Your task to perform on an android device: turn off wifi Image 0: 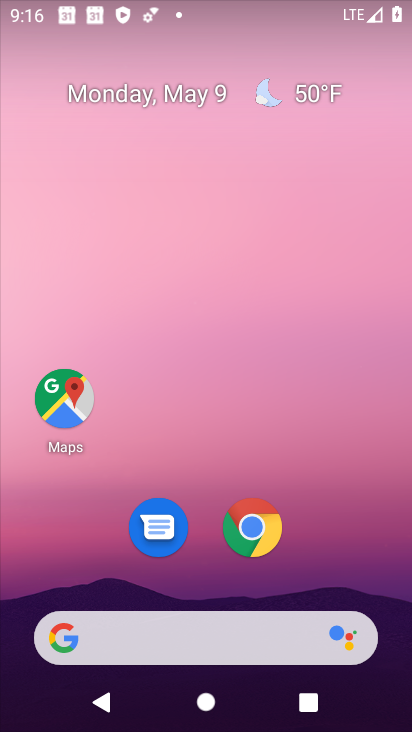
Step 0: drag from (202, 590) to (299, 11)
Your task to perform on an android device: turn off wifi Image 1: 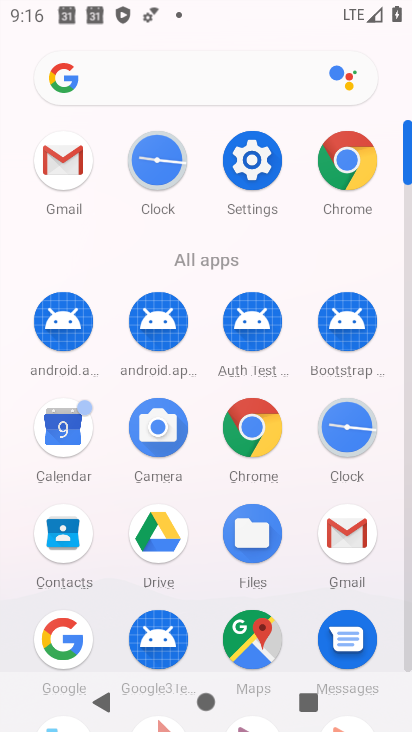
Step 1: click (256, 178)
Your task to perform on an android device: turn off wifi Image 2: 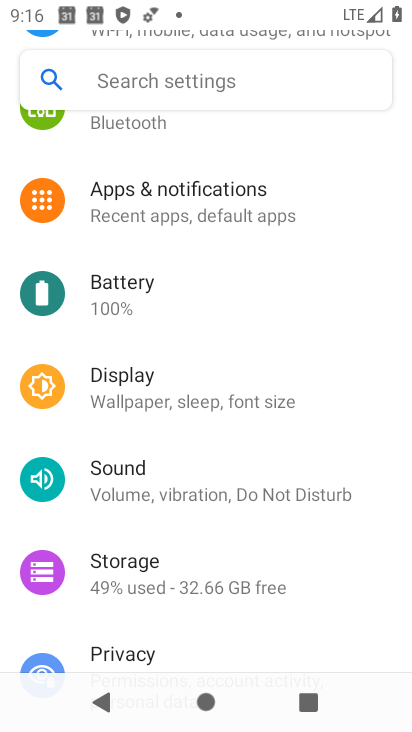
Step 2: drag from (204, 210) to (186, 508)
Your task to perform on an android device: turn off wifi Image 3: 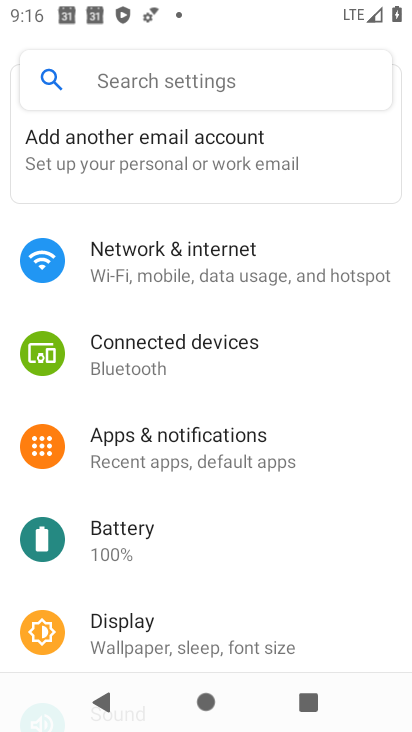
Step 3: click (164, 272)
Your task to perform on an android device: turn off wifi Image 4: 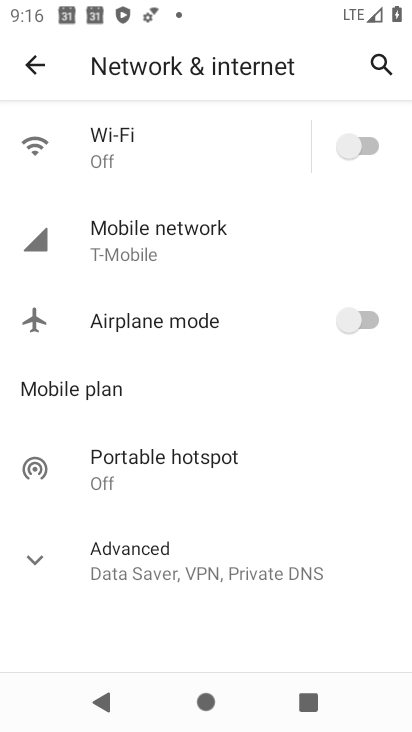
Step 4: task complete